Your task to perform on an android device: change timer sound Image 0: 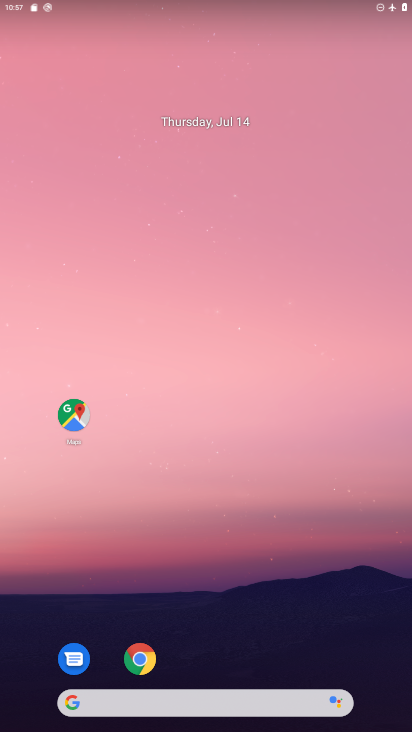
Step 0: drag from (245, 633) to (182, 0)
Your task to perform on an android device: change timer sound Image 1: 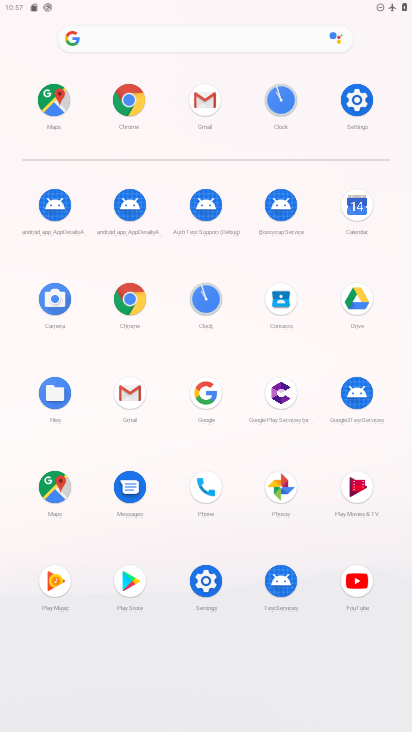
Step 1: click (290, 105)
Your task to perform on an android device: change timer sound Image 2: 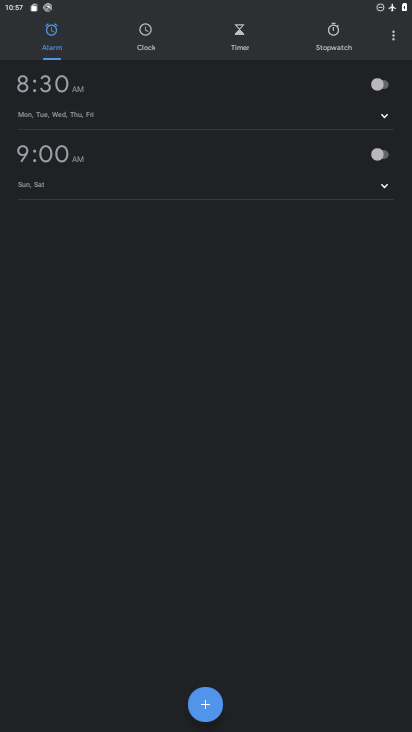
Step 2: click (391, 32)
Your task to perform on an android device: change timer sound Image 3: 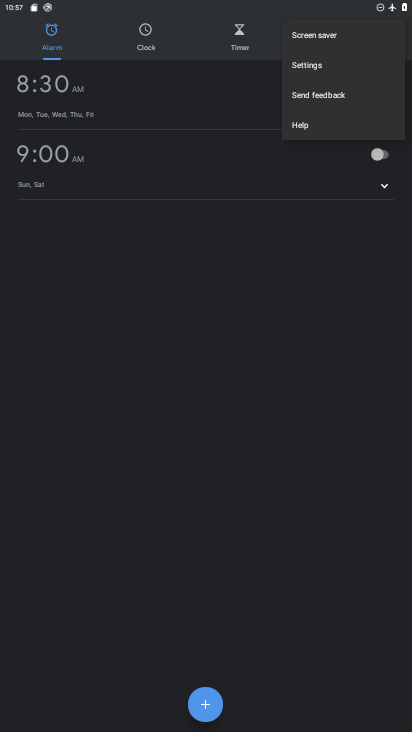
Step 3: click (317, 60)
Your task to perform on an android device: change timer sound Image 4: 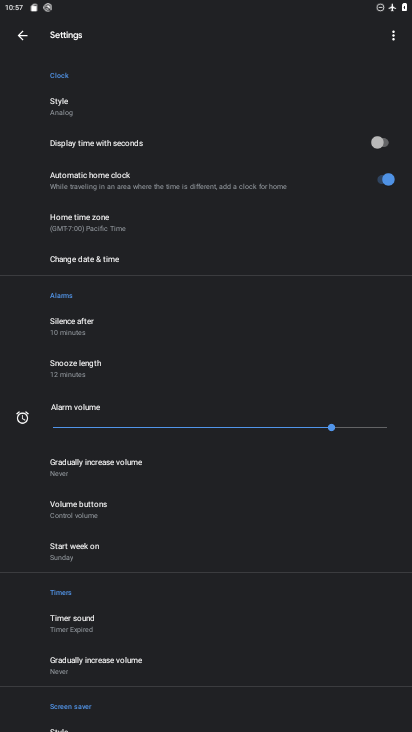
Step 4: click (60, 632)
Your task to perform on an android device: change timer sound Image 5: 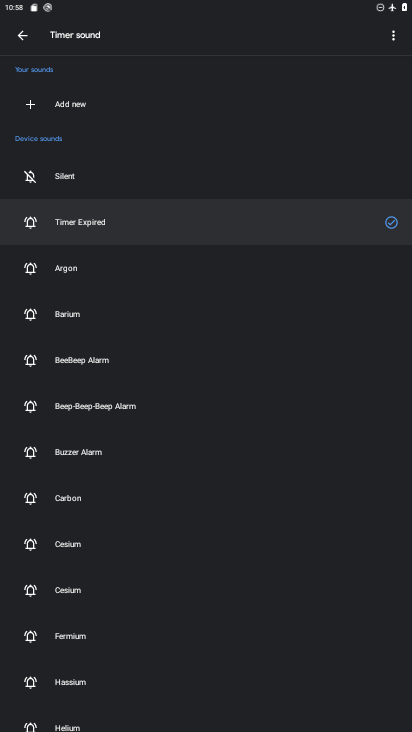
Step 5: click (67, 283)
Your task to perform on an android device: change timer sound Image 6: 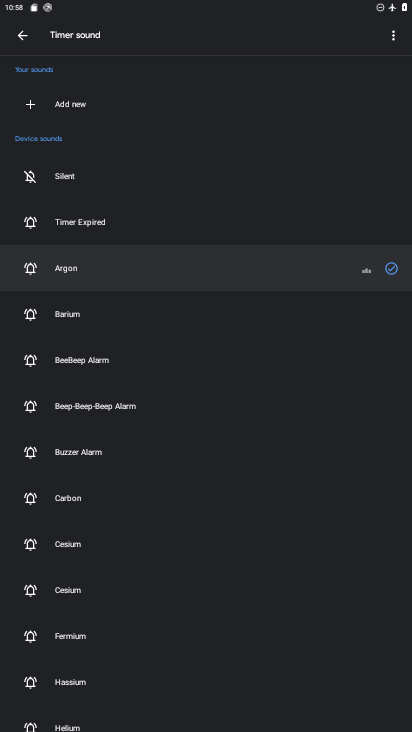
Step 6: task complete